Your task to perform on an android device: open a new tab in the chrome app Image 0: 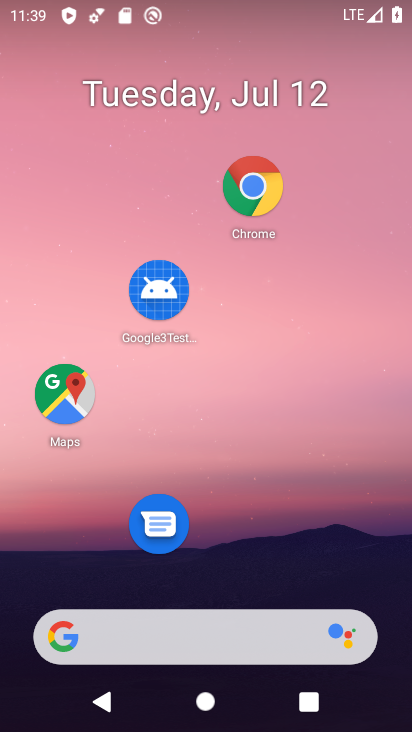
Step 0: drag from (191, 567) to (130, 0)
Your task to perform on an android device: open a new tab in the chrome app Image 1: 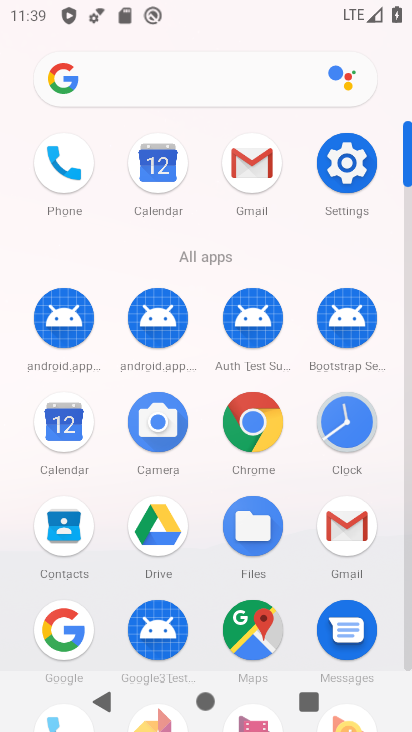
Step 1: click (254, 404)
Your task to perform on an android device: open a new tab in the chrome app Image 2: 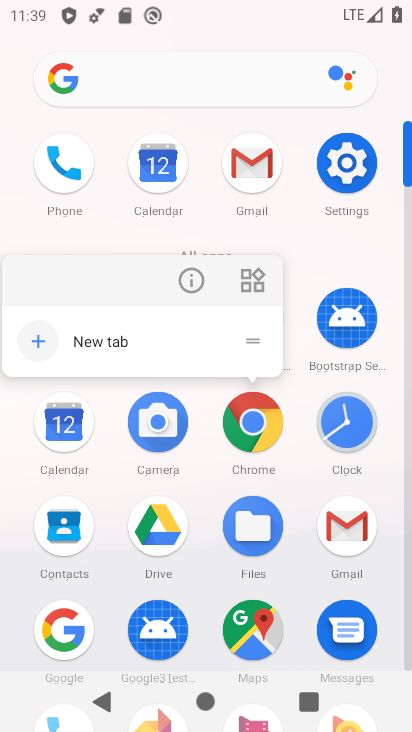
Step 2: click (254, 404)
Your task to perform on an android device: open a new tab in the chrome app Image 3: 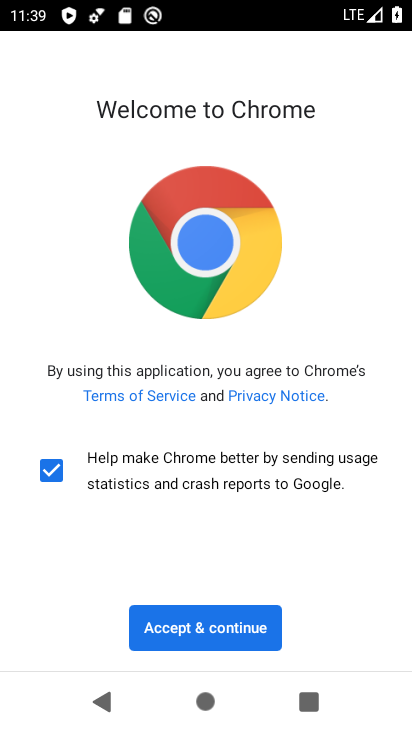
Step 3: click (254, 615)
Your task to perform on an android device: open a new tab in the chrome app Image 4: 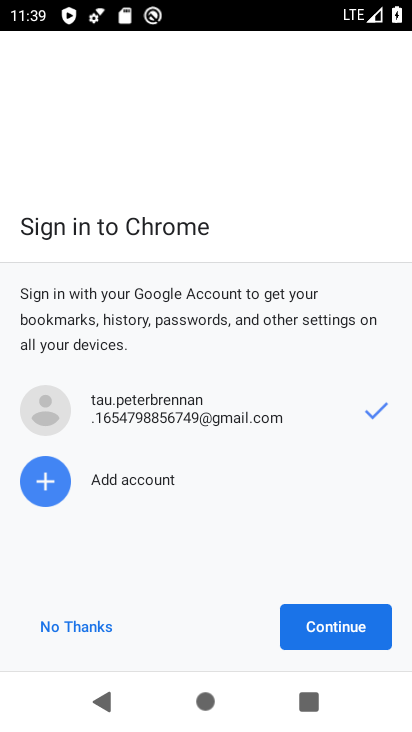
Step 4: click (299, 616)
Your task to perform on an android device: open a new tab in the chrome app Image 5: 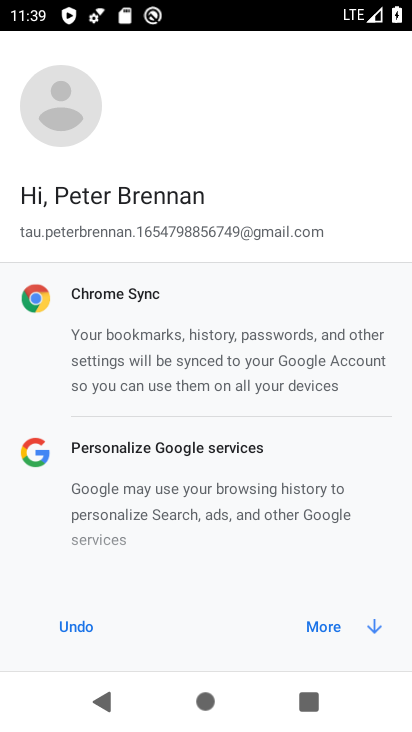
Step 5: click (324, 619)
Your task to perform on an android device: open a new tab in the chrome app Image 6: 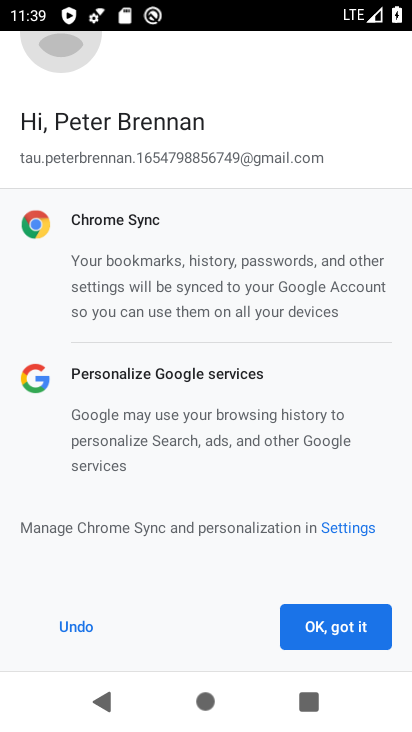
Step 6: click (324, 619)
Your task to perform on an android device: open a new tab in the chrome app Image 7: 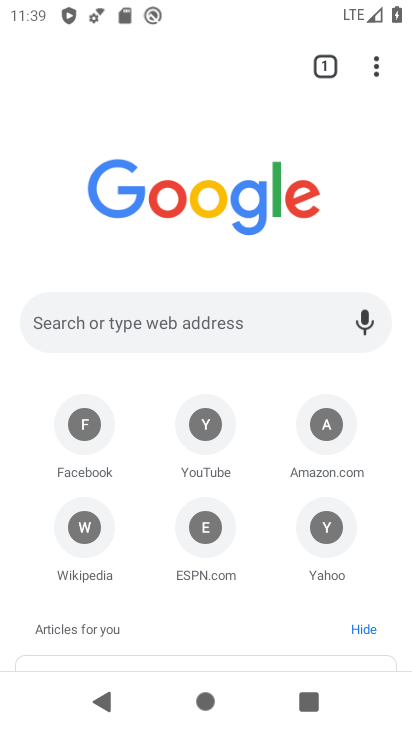
Step 7: click (336, 72)
Your task to perform on an android device: open a new tab in the chrome app Image 8: 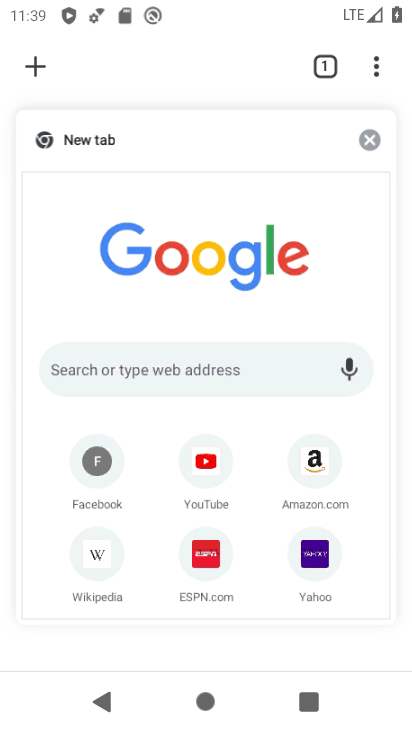
Step 8: click (31, 66)
Your task to perform on an android device: open a new tab in the chrome app Image 9: 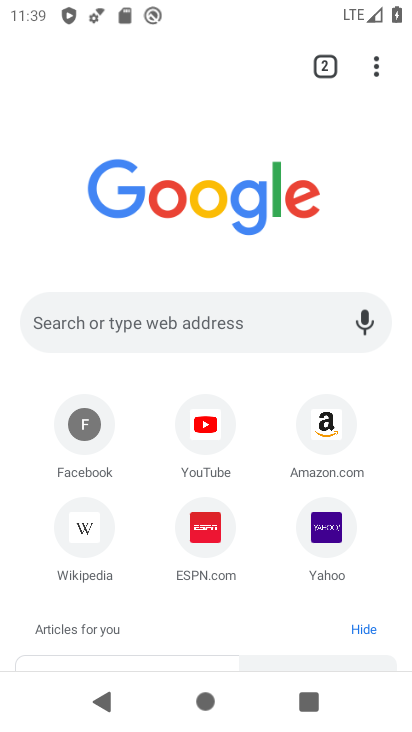
Step 9: task complete